Your task to perform on an android device: Open Google Maps Image 0: 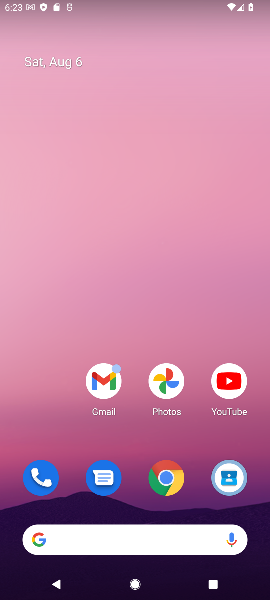
Step 0: drag from (134, 493) to (124, 14)
Your task to perform on an android device: Open Google Maps Image 1: 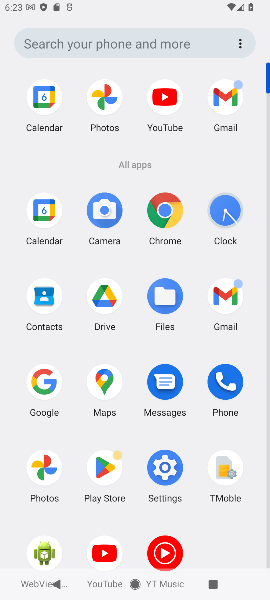
Step 1: click (98, 413)
Your task to perform on an android device: Open Google Maps Image 2: 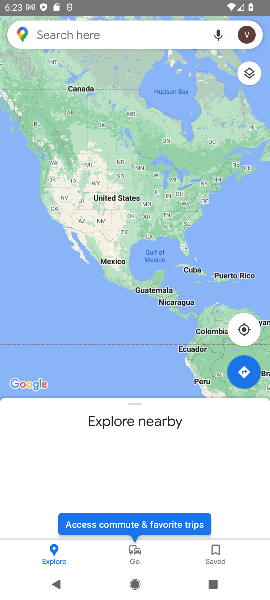
Step 2: task complete